Your task to perform on an android device: Turn on the flashlight Image 0: 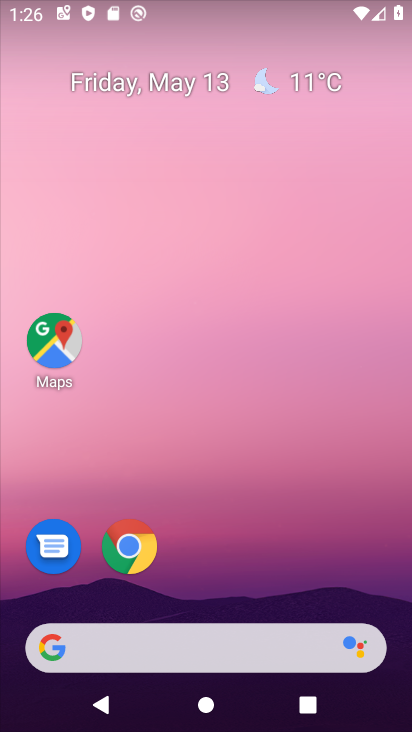
Step 0: drag from (215, 542) to (310, 129)
Your task to perform on an android device: Turn on the flashlight Image 1: 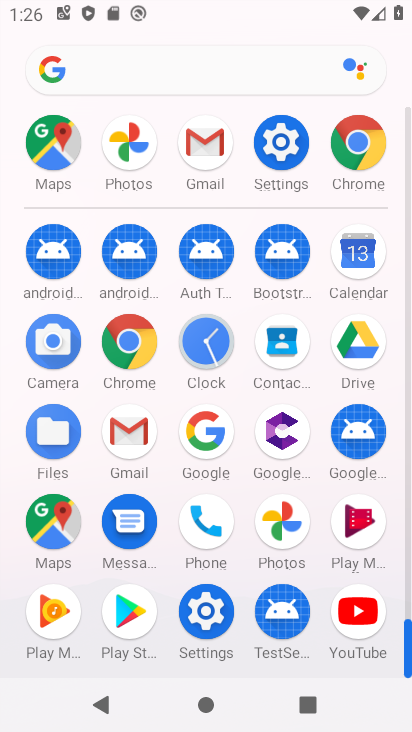
Step 1: task complete